Your task to perform on an android device: allow cookies in the chrome app Image 0: 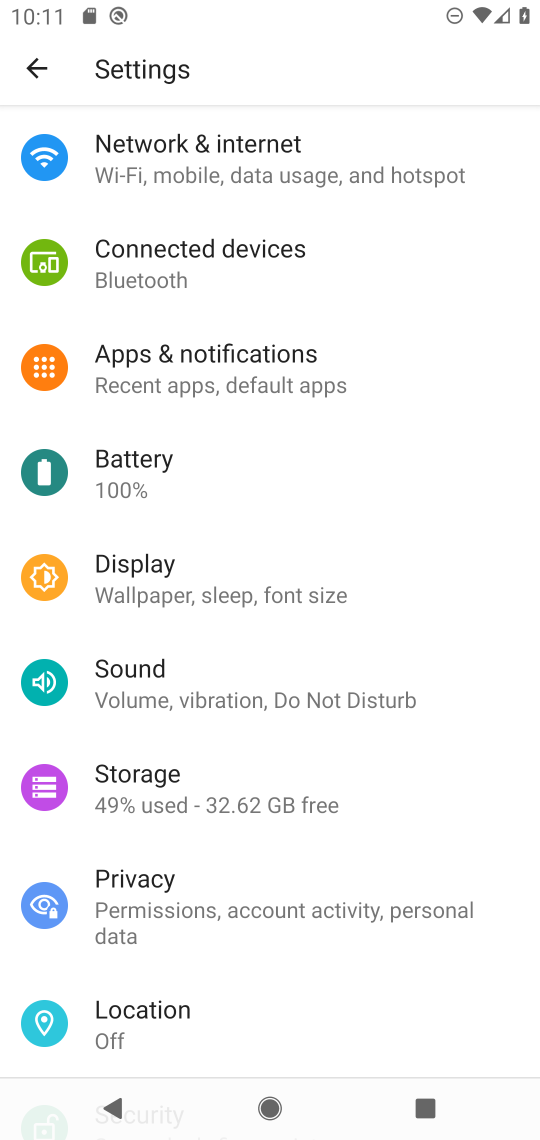
Step 0: press home button
Your task to perform on an android device: allow cookies in the chrome app Image 1: 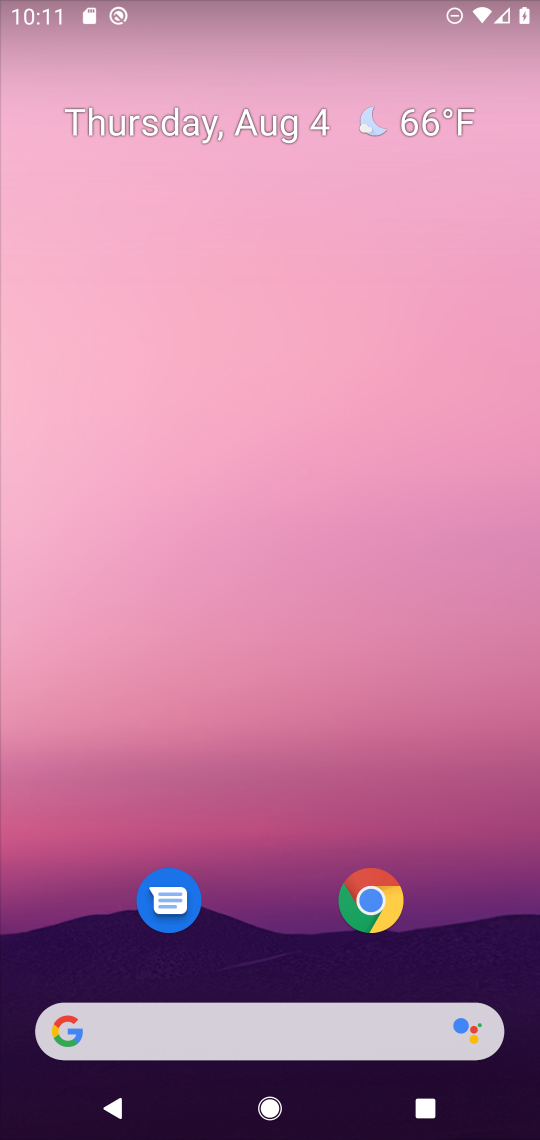
Step 1: drag from (509, 944) to (393, 60)
Your task to perform on an android device: allow cookies in the chrome app Image 2: 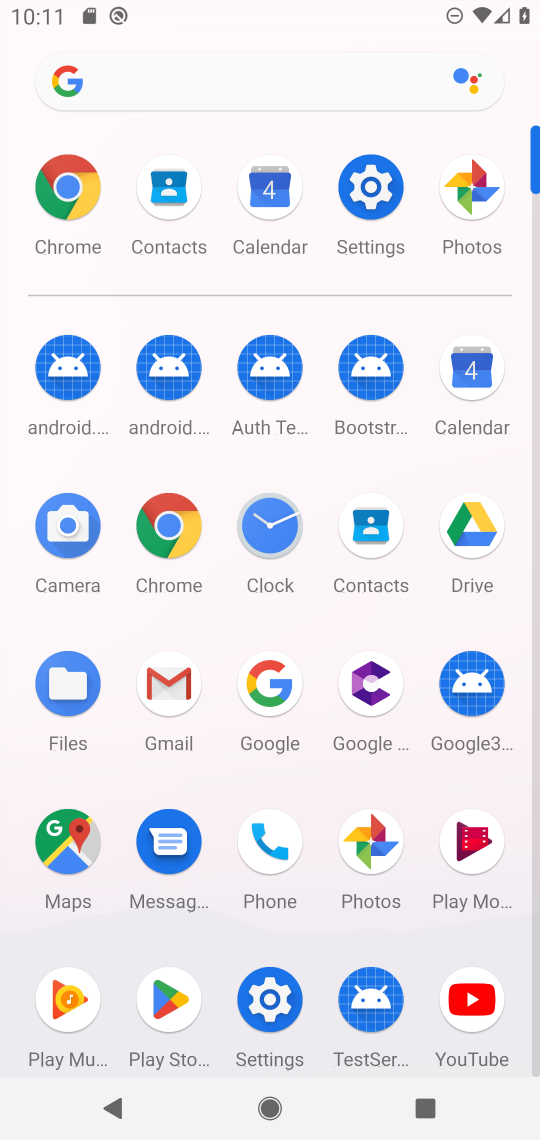
Step 2: click (54, 203)
Your task to perform on an android device: allow cookies in the chrome app Image 3: 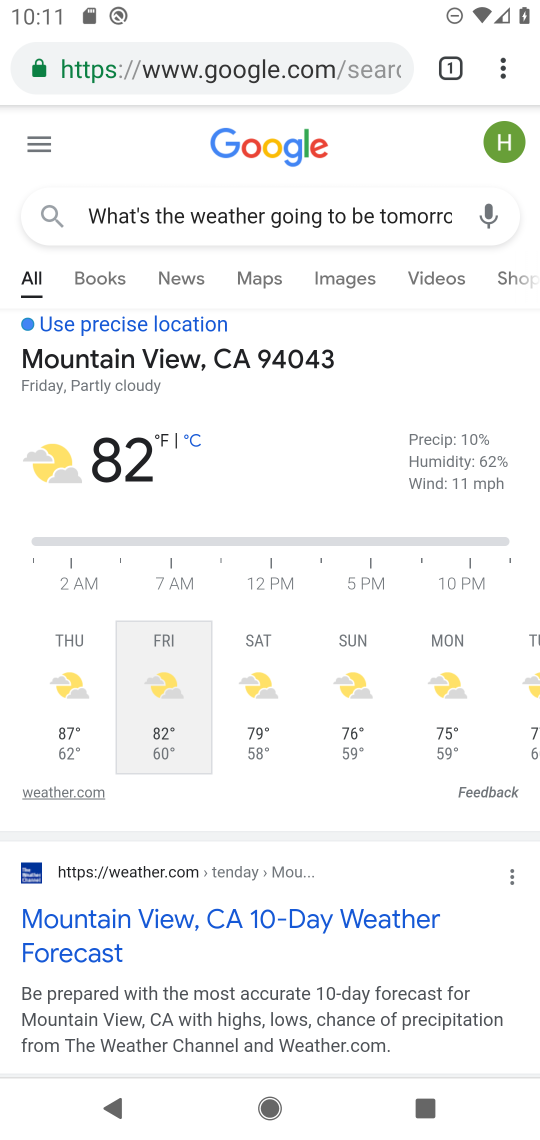
Step 3: click (515, 66)
Your task to perform on an android device: allow cookies in the chrome app Image 4: 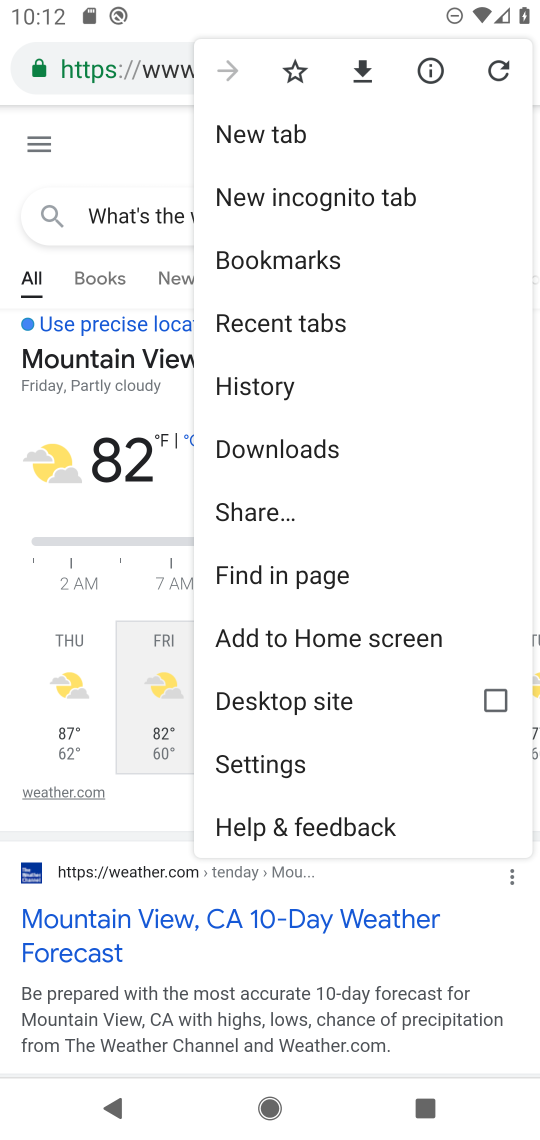
Step 4: click (334, 770)
Your task to perform on an android device: allow cookies in the chrome app Image 5: 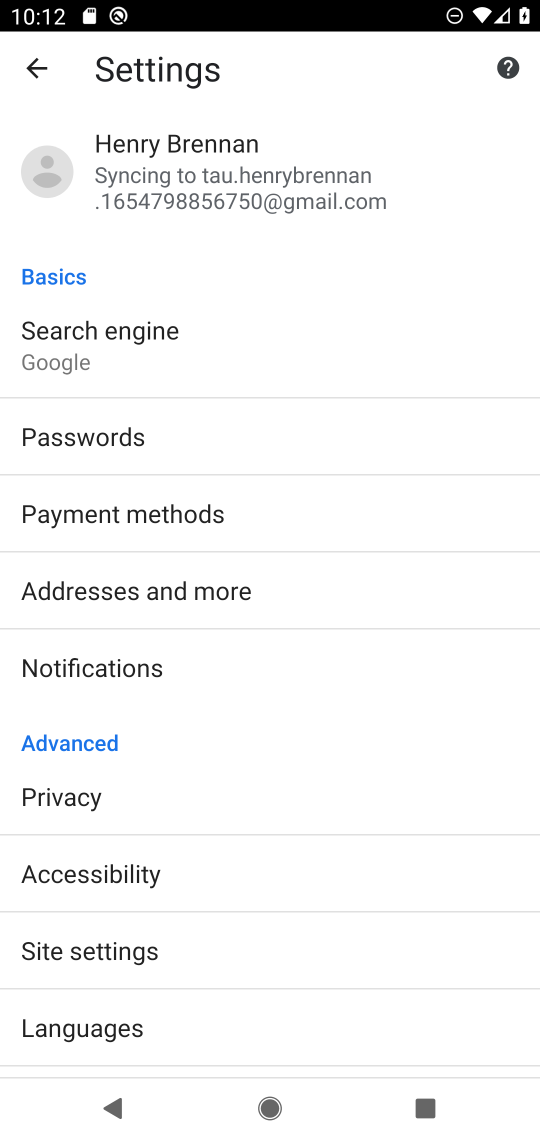
Step 5: drag from (341, 662) to (251, 195)
Your task to perform on an android device: allow cookies in the chrome app Image 6: 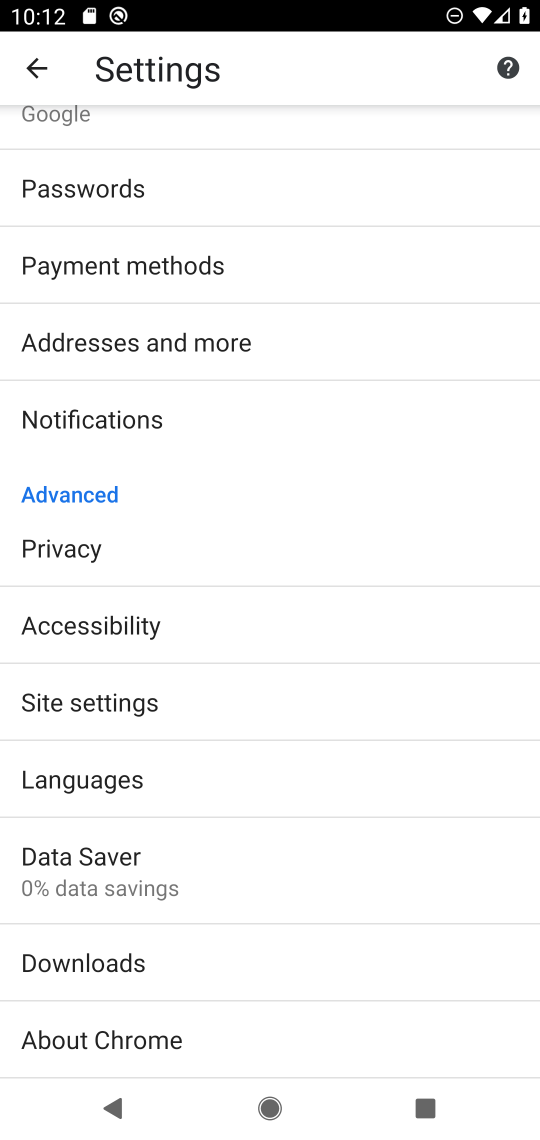
Step 6: click (352, 704)
Your task to perform on an android device: allow cookies in the chrome app Image 7: 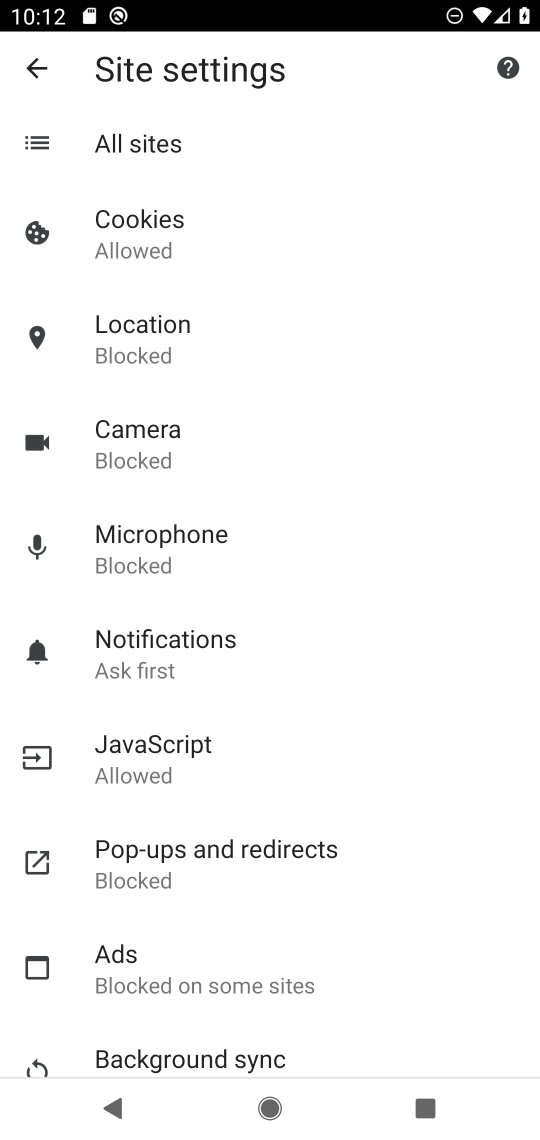
Step 7: click (303, 263)
Your task to perform on an android device: allow cookies in the chrome app Image 8: 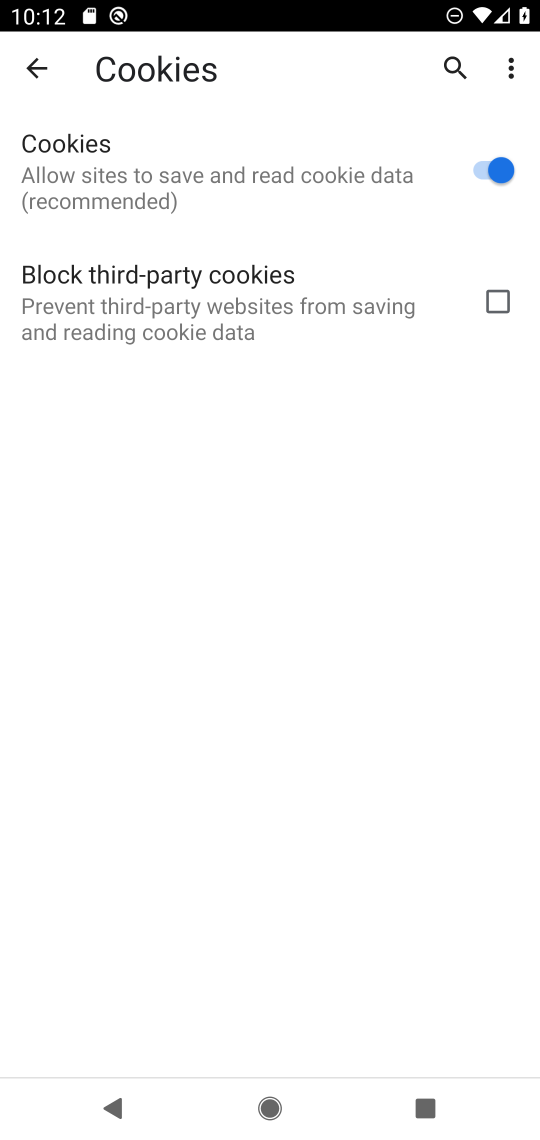
Step 8: task complete